Your task to perform on an android device: Search for seafood restaurants on Google Maps Image 0: 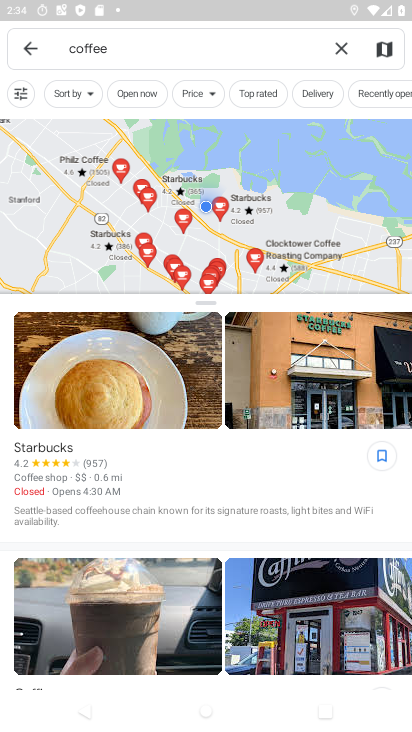
Step 0: click (337, 48)
Your task to perform on an android device: Search for seafood restaurants on Google Maps Image 1: 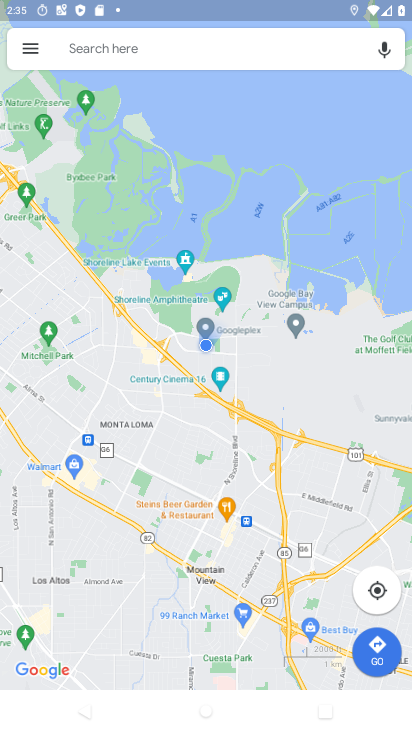
Step 1: click (108, 45)
Your task to perform on an android device: Search for seafood restaurants on Google Maps Image 2: 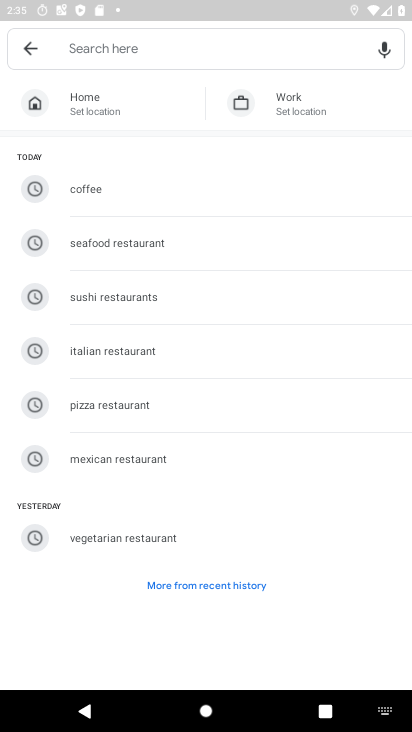
Step 2: click (141, 240)
Your task to perform on an android device: Search for seafood restaurants on Google Maps Image 3: 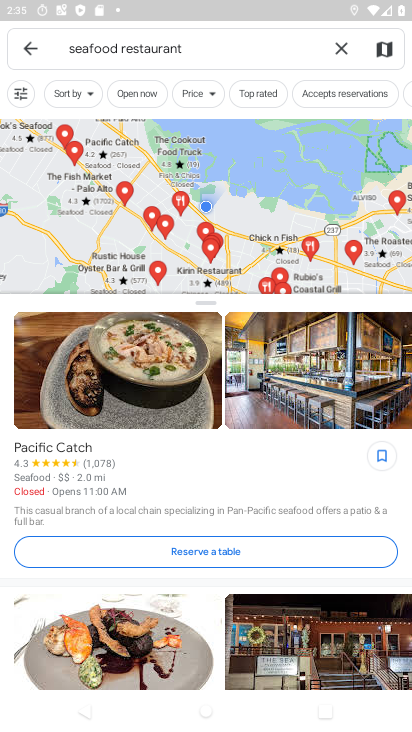
Step 3: task complete